Your task to perform on an android device: Go to battery settings Image 0: 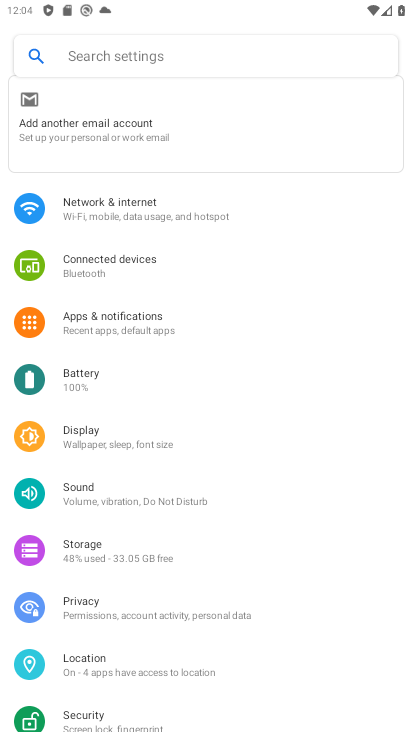
Step 0: press home button
Your task to perform on an android device: Go to battery settings Image 1: 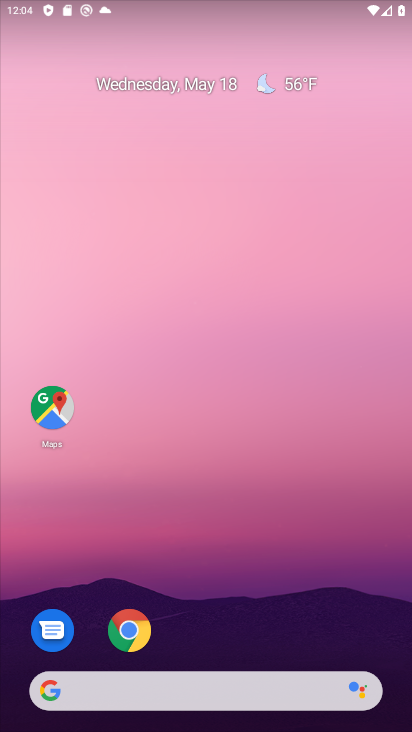
Step 1: drag from (285, 594) to (285, 29)
Your task to perform on an android device: Go to battery settings Image 2: 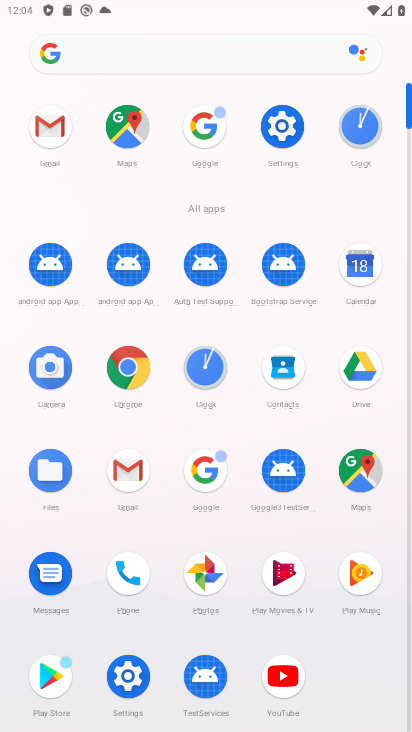
Step 2: click (273, 135)
Your task to perform on an android device: Go to battery settings Image 3: 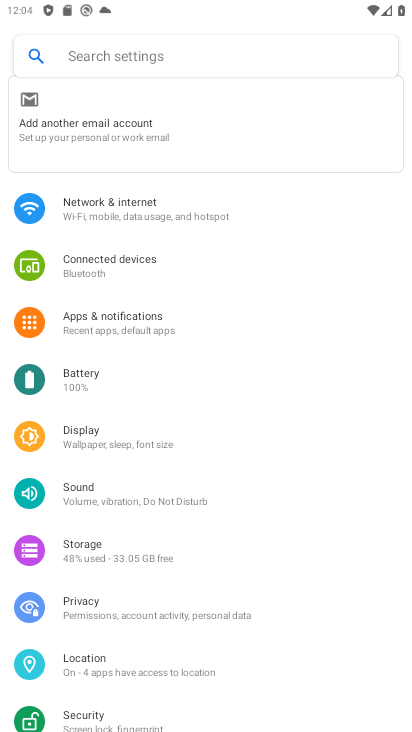
Step 3: click (81, 371)
Your task to perform on an android device: Go to battery settings Image 4: 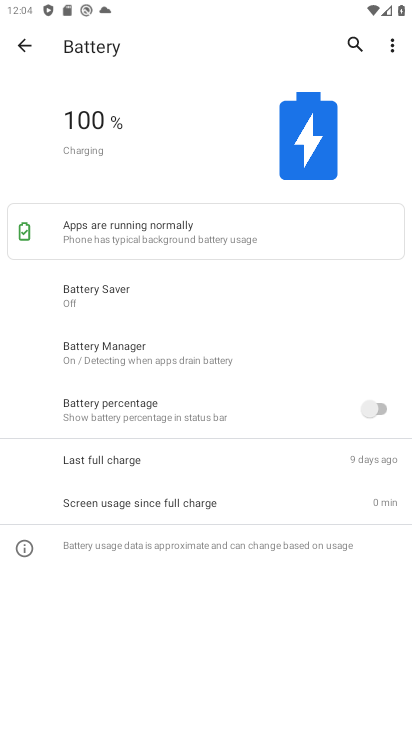
Step 4: task complete